Your task to perform on an android device: turn off notifications in google photos Image 0: 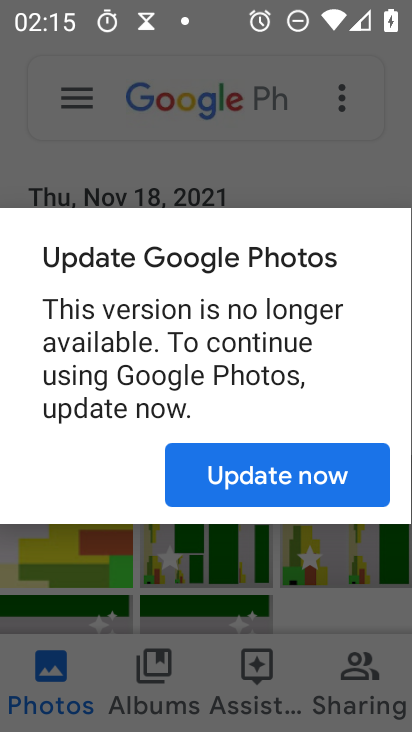
Step 0: press home button
Your task to perform on an android device: turn off notifications in google photos Image 1: 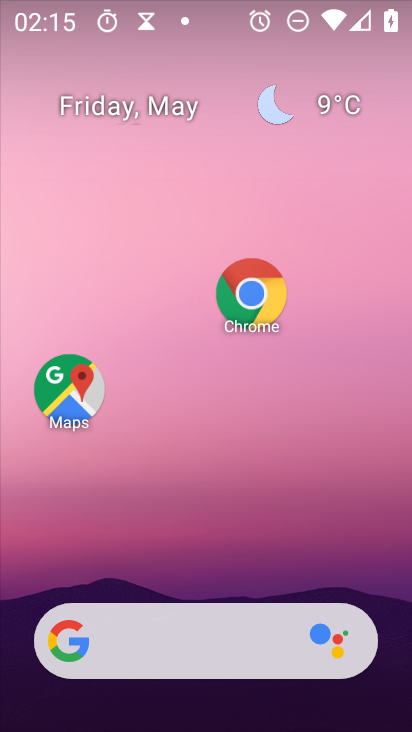
Step 1: drag from (195, 647) to (360, 186)
Your task to perform on an android device: turn off notifications in google photos Image 2: 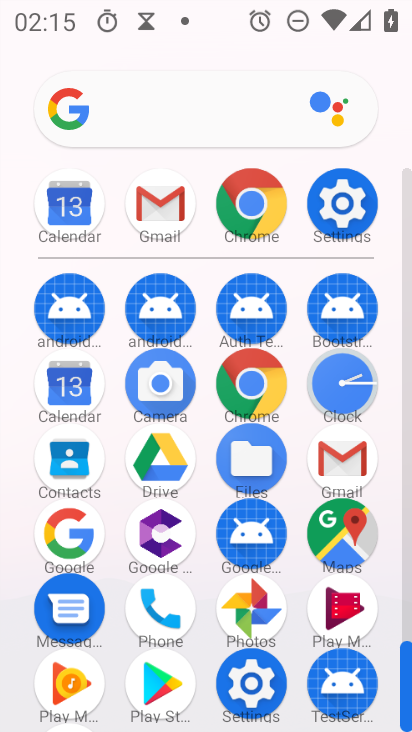
Step 2: click (265, 619)
Your task to perform on an android device: turn off notifications in google photos Image 3: 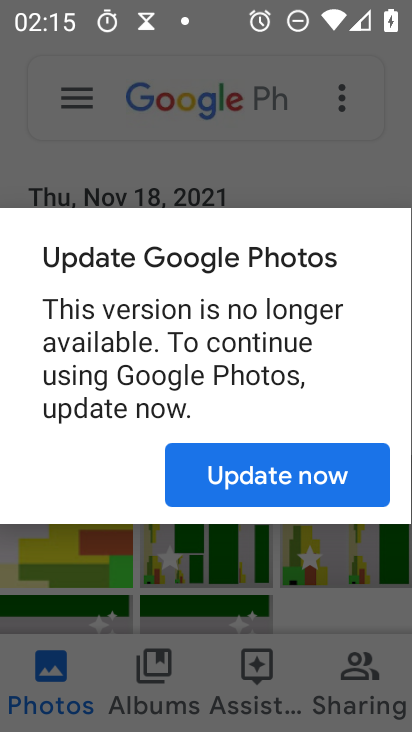
Step 3: click (267, 486)
Your task to perform on an android device: turn off notifications in google photos Image 4: 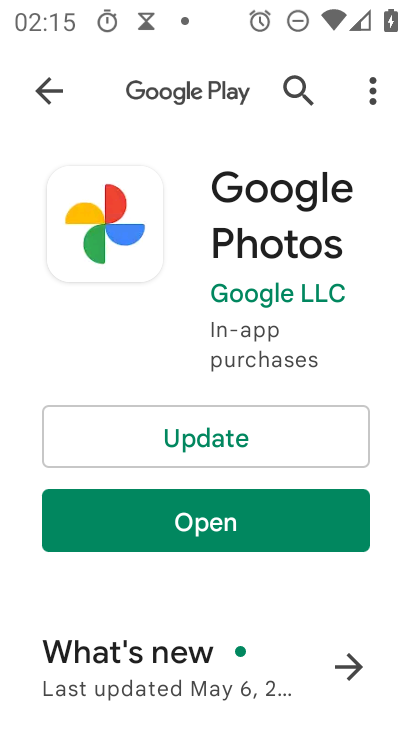
Step 4: click (221, 531)
Your task to perform on an android device: turn off notifications in google photos Image 5: 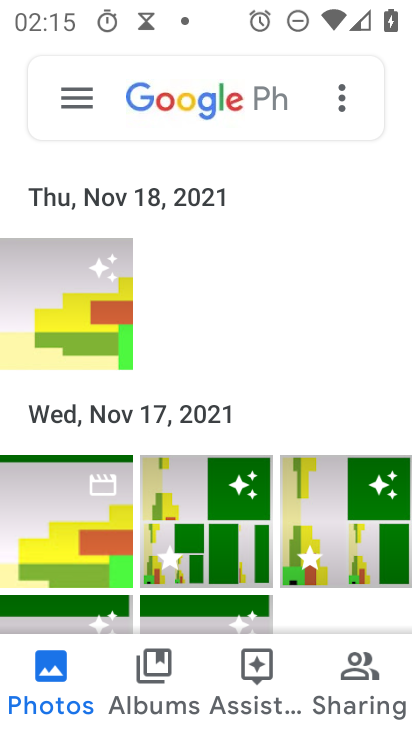
Step 5: click (65, 98)
Your task to perform on an android device: turn off notifications in google photos Image 6: 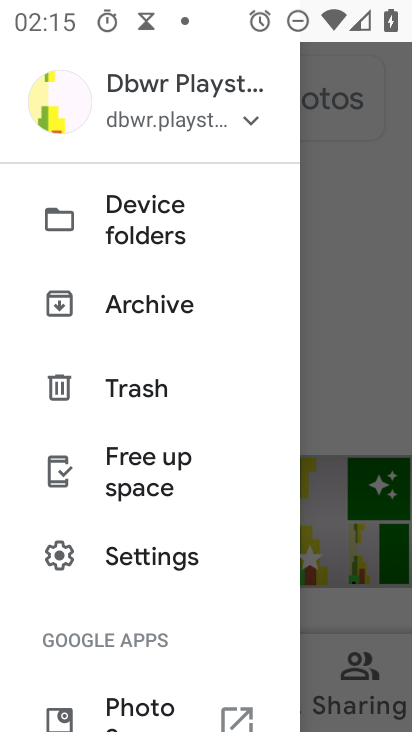
Step 6: click (158, 565)
Your task to perform on an android device: turn off notifications in google photos Image 7: 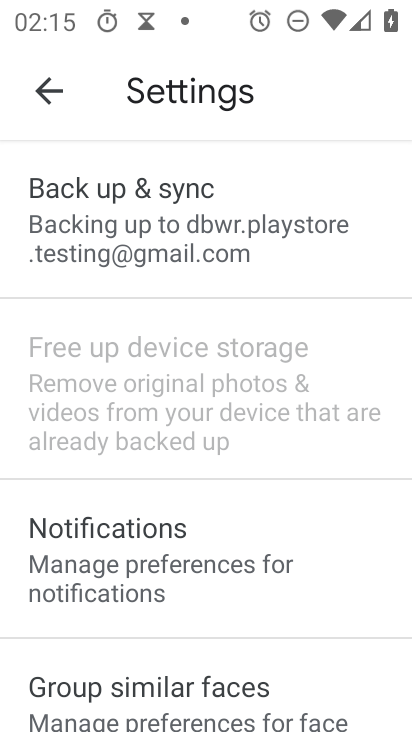
Step 7: click (157, 574)
Your task to perform on an android device: turn off notifications in google photos Image 8: 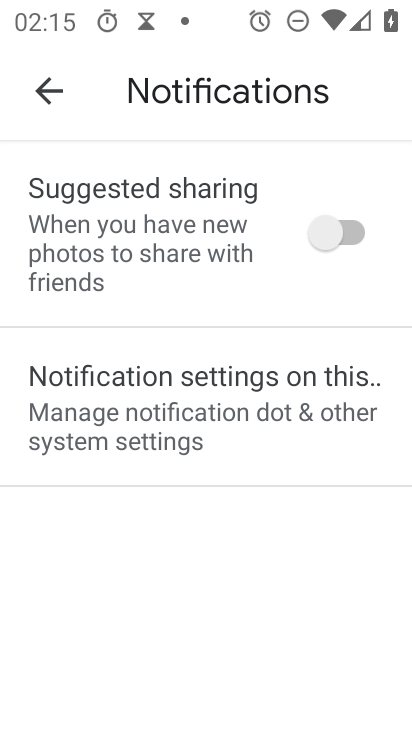
Step 8: click (219, 401)
Your task to perform on an android device: turn off notifications in google photos Image 9: 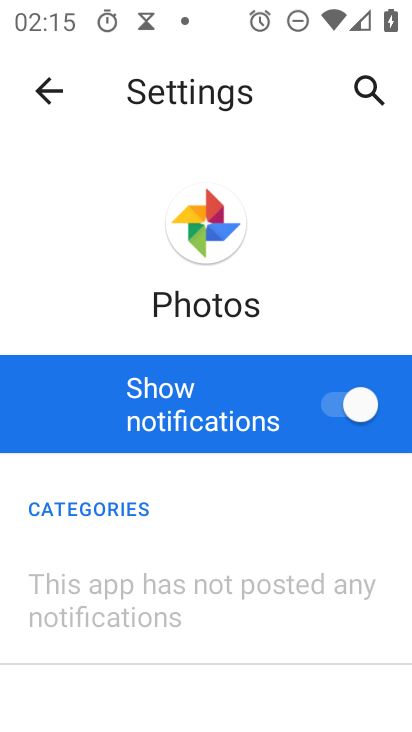
Step 9: click (335, 401)
Your task to perform on an android device: turn off notifications in google photos Image 10: 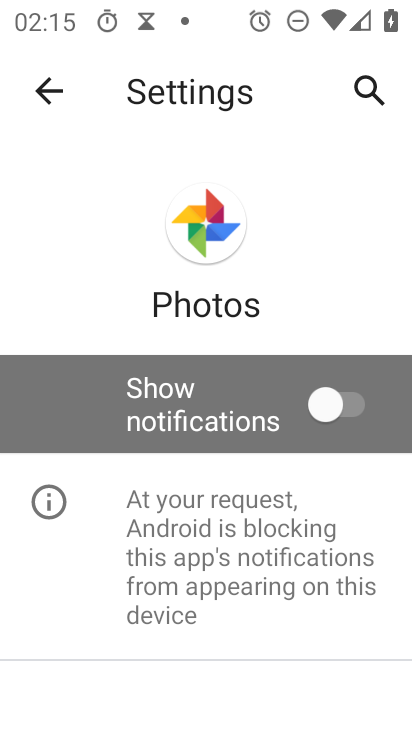
Step 10: task complete